Your task to perform on an android device: turn on showing notifications on the lock screen Image 0: 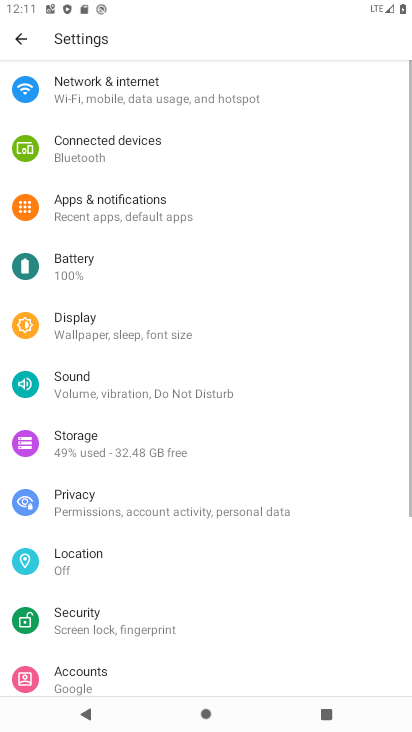
Step 0: press back button
Your task to perform on an android device: turn on showing notifications on the lock screen Image 1: 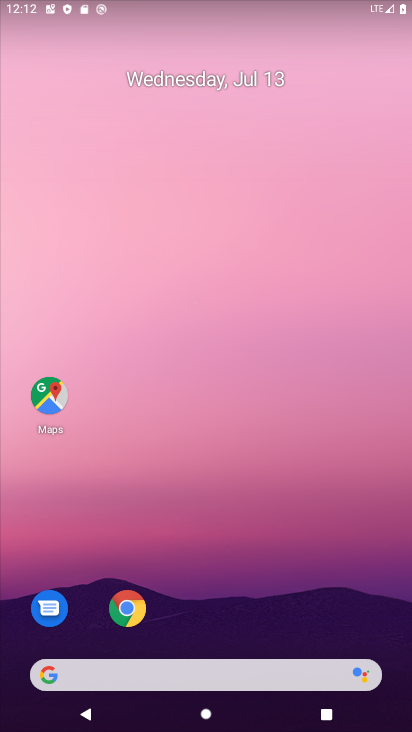
Step 1: drag from (188, 618) to (270, 11)
Your task to perform on an android device: turn on showing notifications on the lock screen Image 2: 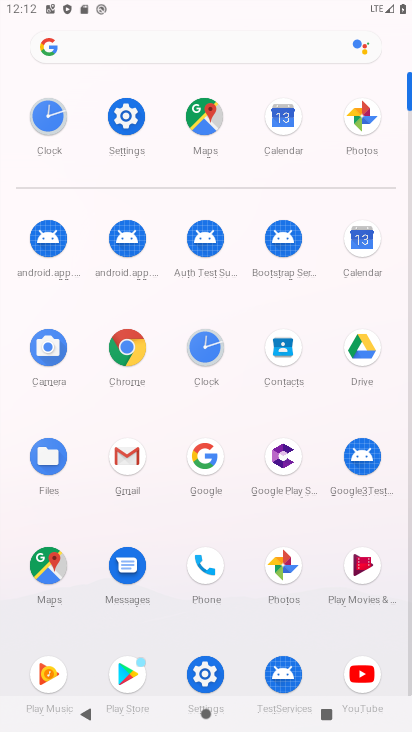
Step 2: click (126, 121)
Your task to perform on an android device: turn on showing notifications on the lock screen Image 3: 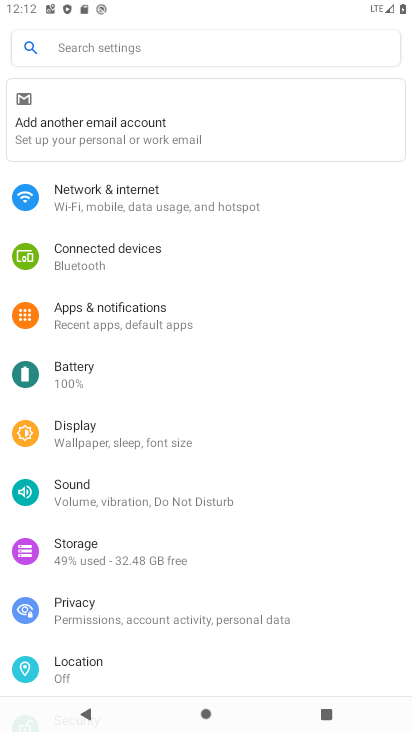
Step 3: click (124, 322)
Your task to perform on an android device: turn on showing notifications on the lock screen Image 4: 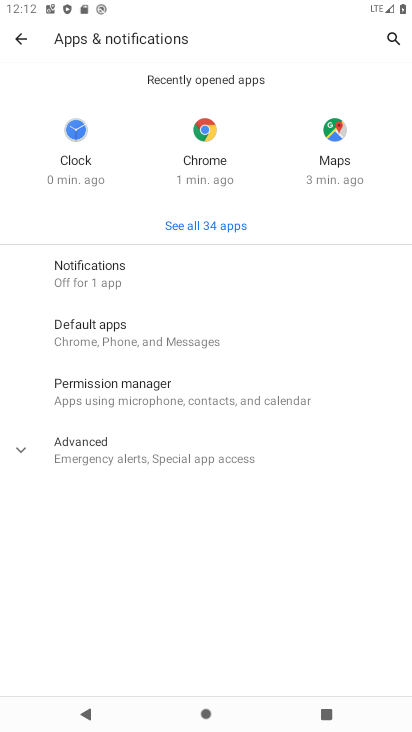
Step 4: click (170, 268)
Your task to perform on an android device: turn on showing notifications on the lock screen Image 5: 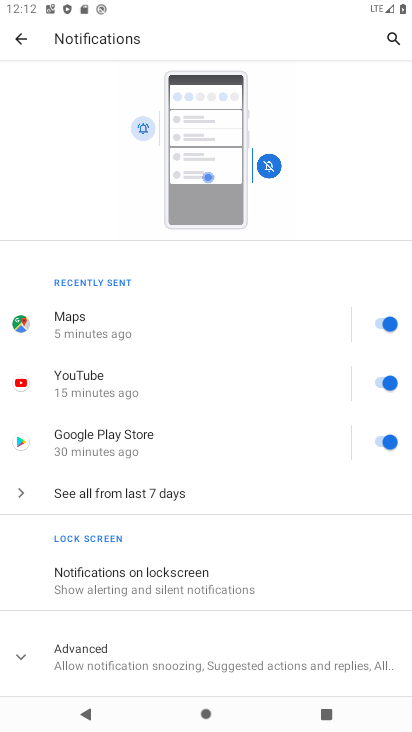
Step 5: click (141, 573)
Your task to perform on an android device: turn on showing notifications on the lock screen Image 6: 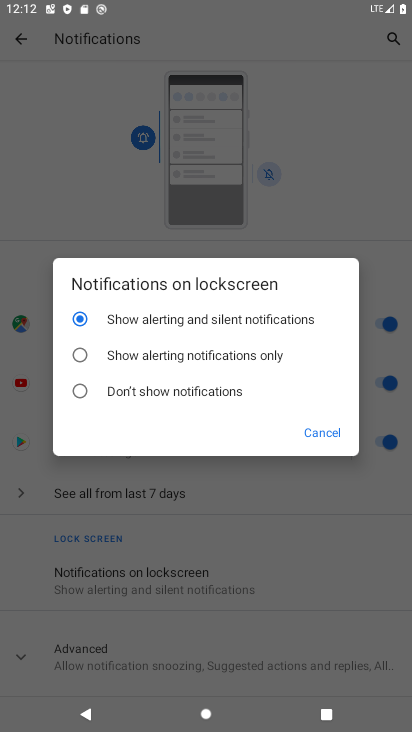
Step 6: click (80, 324)
Your task to perform on an android device: turn on showing notifications on the lock screen Image 7: 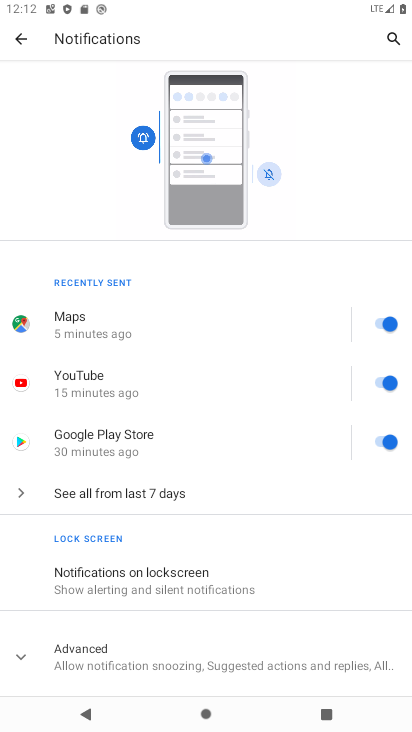
Step 7: task complete